Your task to perform on an android device: turn off location Image 0: 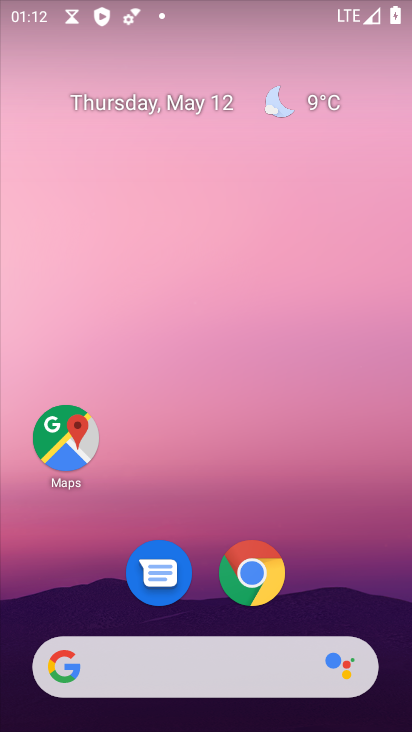
Step 0: drag from (351, 585) to (358, 64)
Your task to perform on an android device: turn off location Image 1: 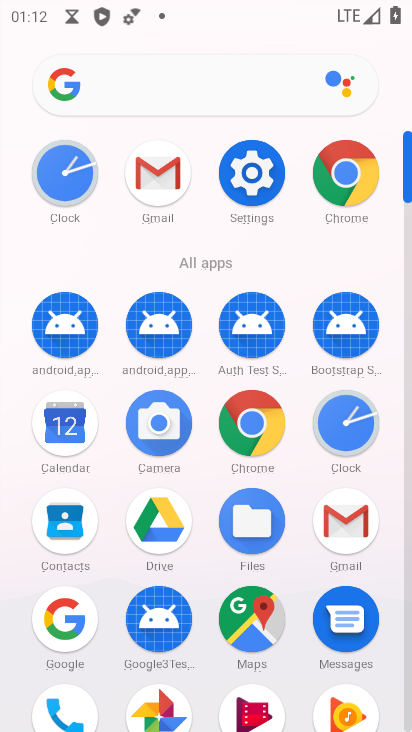
Step 1: click (242, 184)
Your task to perform on an android device: turn off location Image 2: 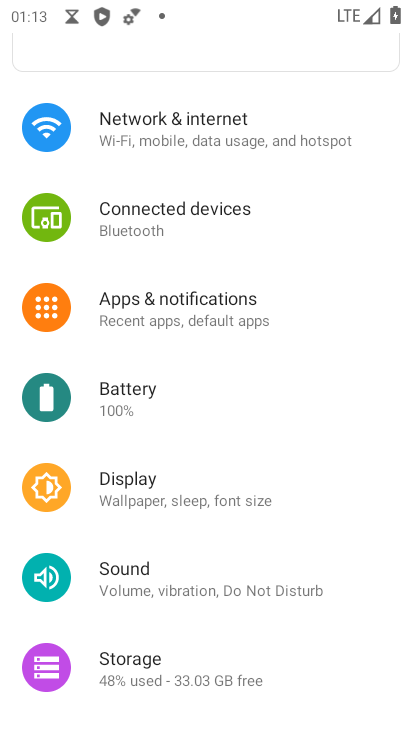
Step 2: drag from (162, 665) to (163, 400)
Your task to perform on an android device: turn off location Image 3: 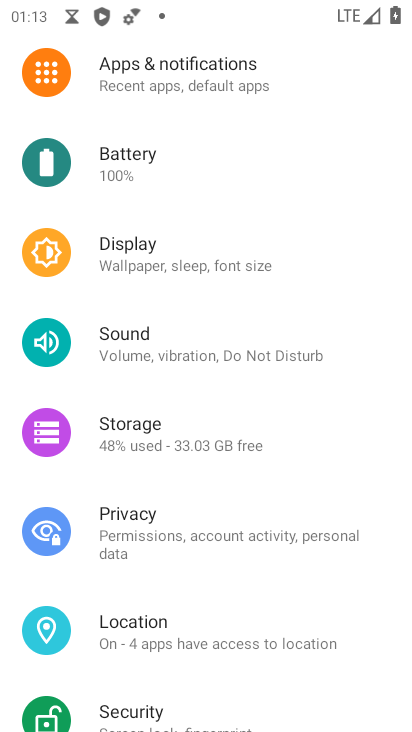
Step 3: click (262, 635)
Your task to perform on an android device: turn off location Image 4: 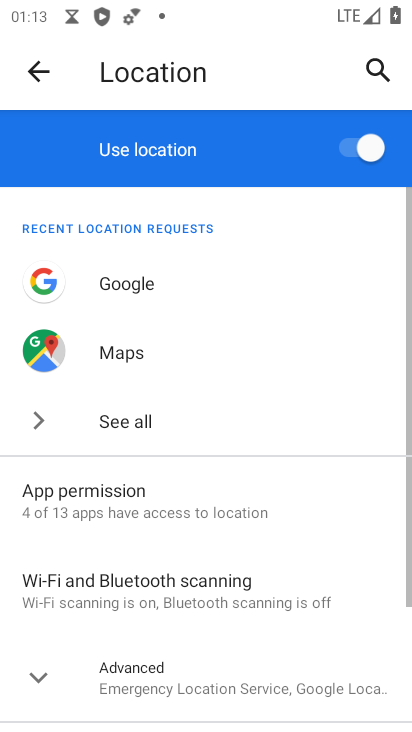
Step 4: click (372, 141)
Your task to perform on an android device: turn off location Image 5: 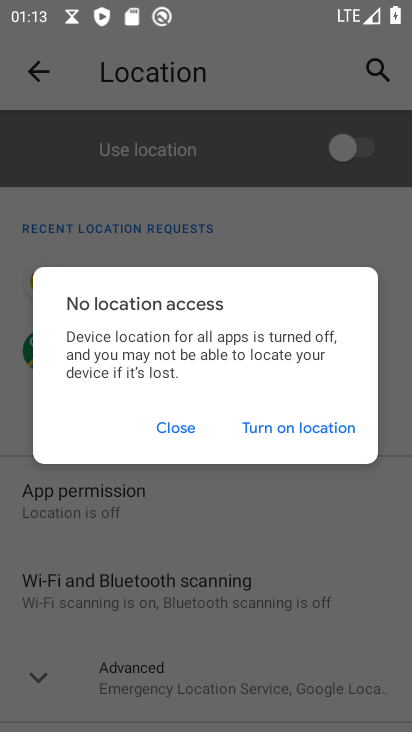
Step 5: task complete